Your task to perform on an android device: Open privacy settings Image 0: 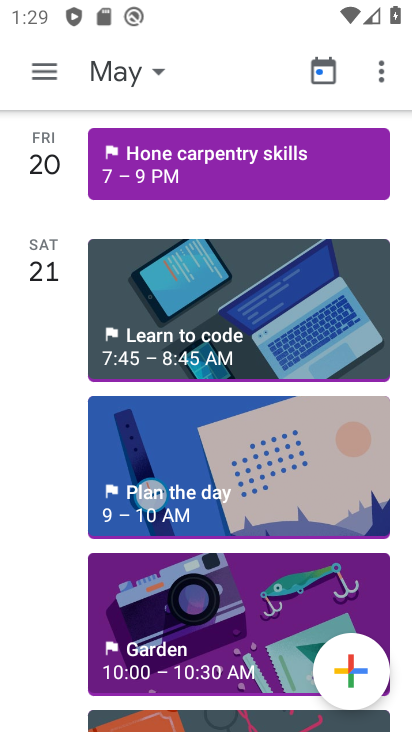
Step 0: press home button
Your task to perform on an android device: Open privacy settings Image 1: 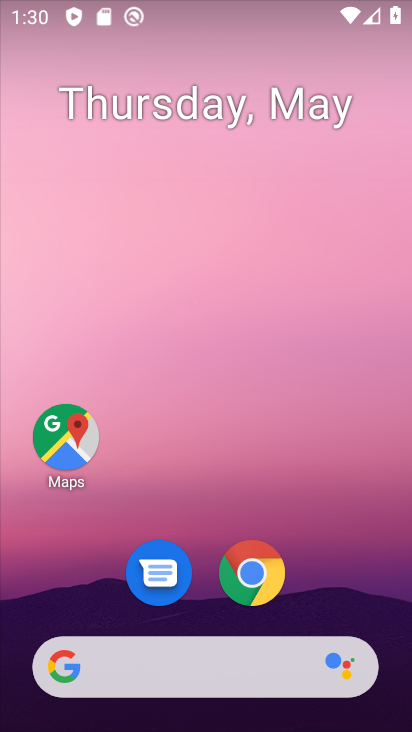
Step 1: drag from (349, 553) to (376, 28)
Your task to perform on an android device: Open privacy settings Image 2: 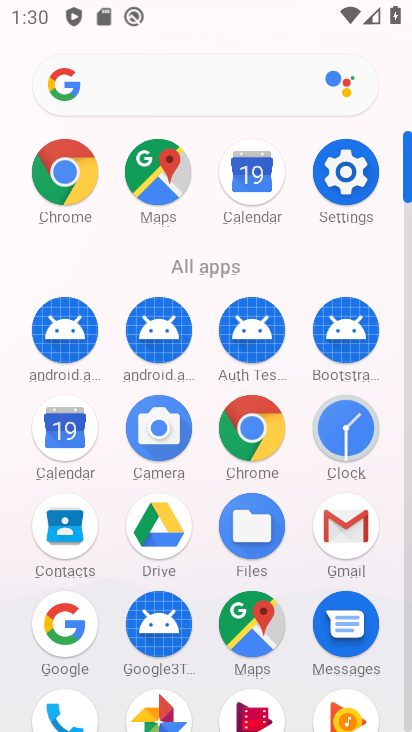
Step 2: click (365, 204)
Your task to perform on an android device: Open privacy settings Image 3: 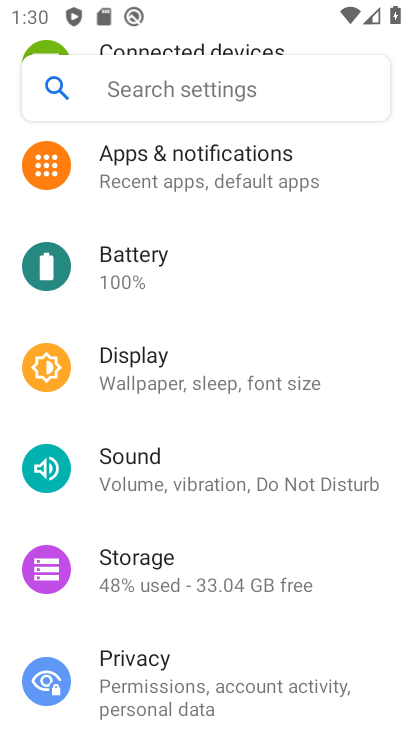
Step 3: click (177, 666)
Your task to perform on an android device: Open privacy settings Image 4: 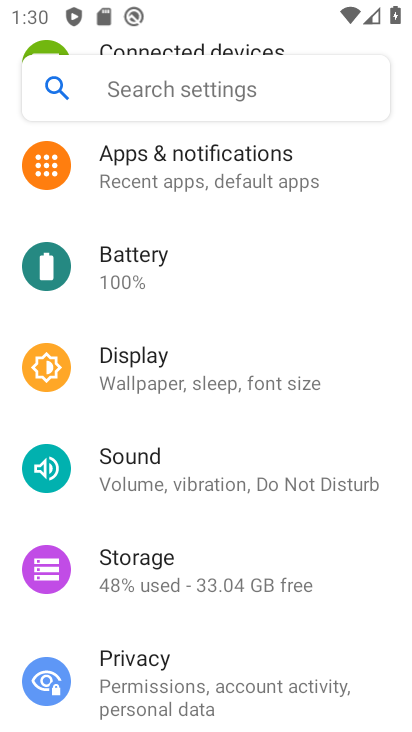
Step 4: click (262, 687)
Your task to perform on an android device: Open privacy settings Image 5: 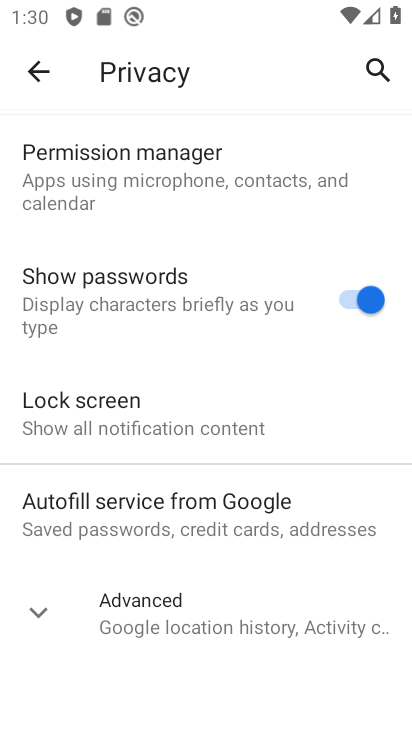
Step 5: task complete